Your task to perform on an android device: find photos in the google photos app Image 0: 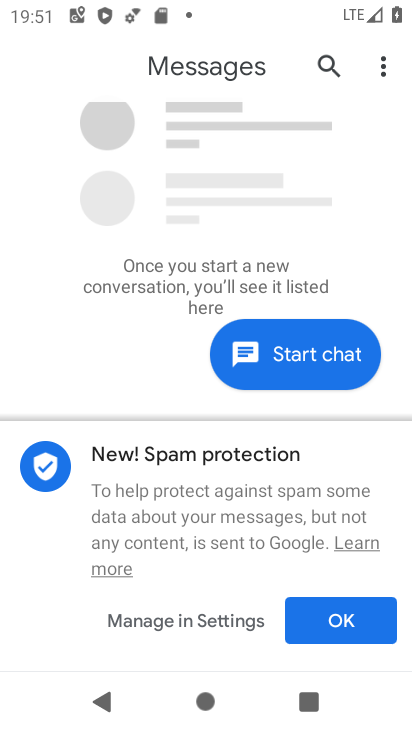
Step 0: press home button
Your task to perform on an android device: find photos in the google photos app Image 1: 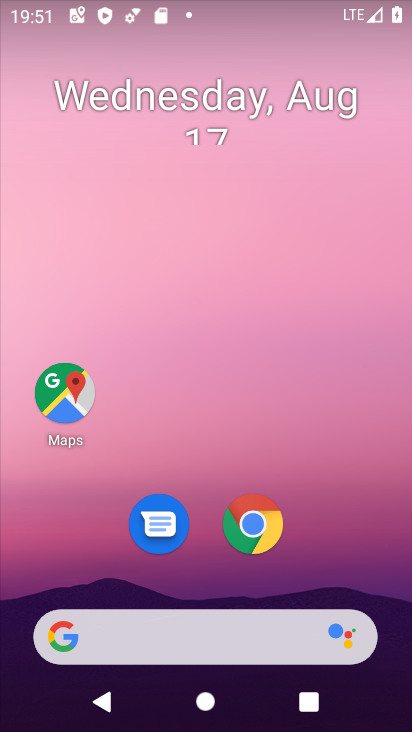
Step 1: drag from (326, 508) to (281, 38)
Your task to perform on an android device: find photos in the google photos app Image 2: 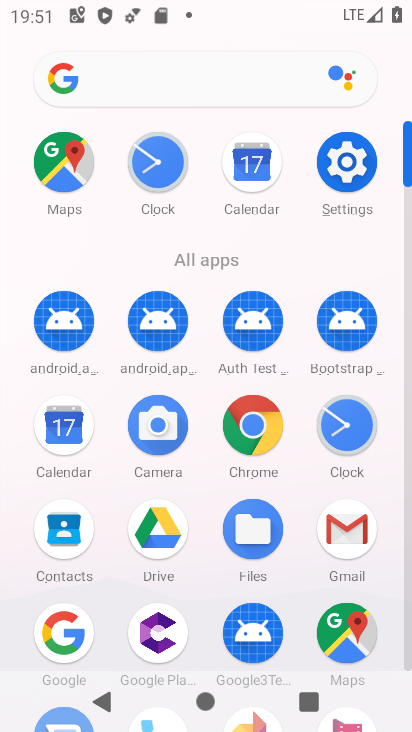
Step 2: drag from (202, 548) to (200, 158)
Your task to perform on an android device: find photos in the google photos app Image 3: 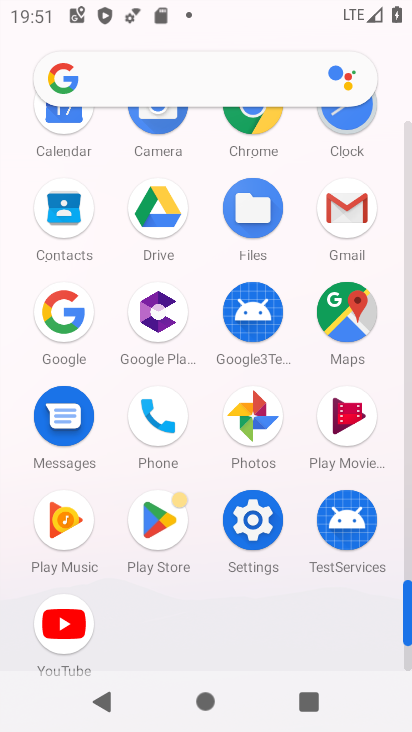
Step 3: click (247, 410)
Your task to perform on an android device: find photos in the google photos app Image 4: 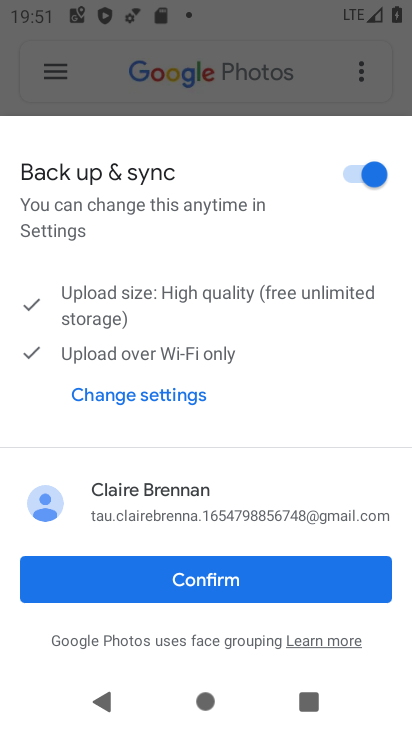
Step 4: click (298, 585)
Your task to perform on an android device: find photos in the google photos app Image 5: 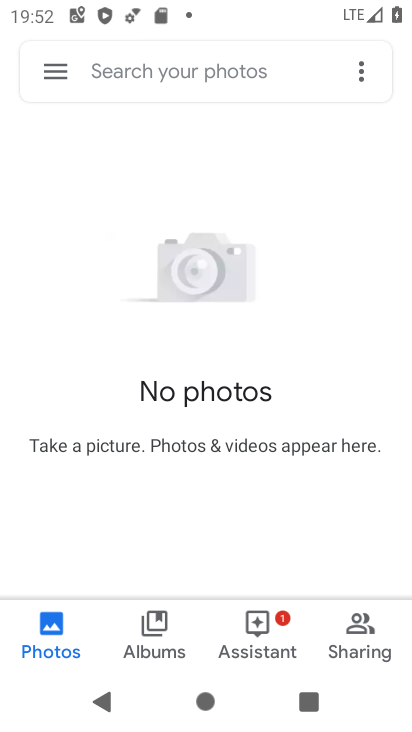
Step 5: task complete